Your task to perform on an android device: show emergency info Image 0: 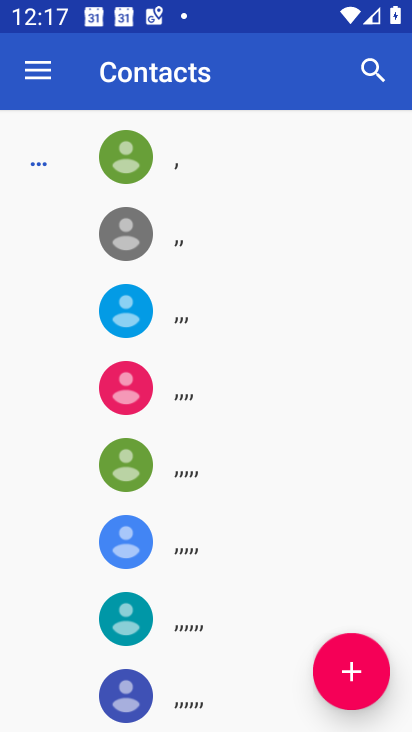
Step 0: press home button
Your task to perform on an android device: show emergency info Image 1: 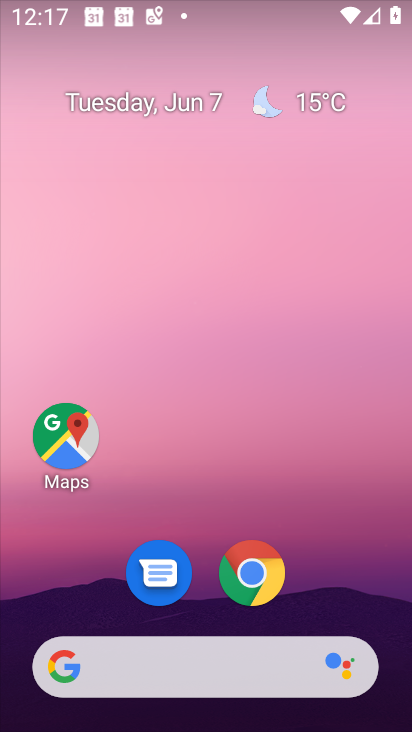
Step 1: drag from (318, 587) to (313, 31)
Your task to perform on an android device: show emergency info Image 2: 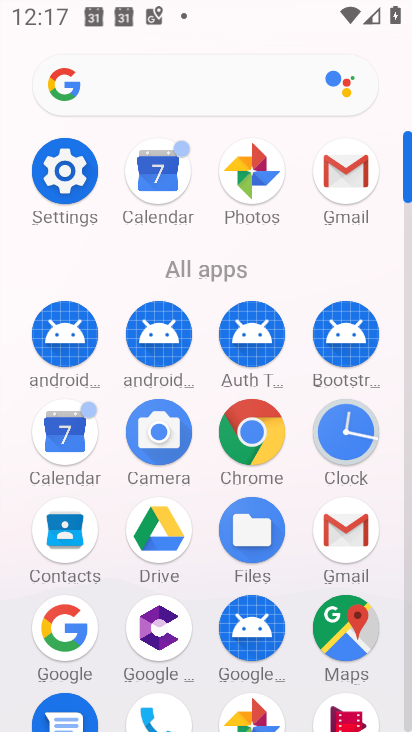
Step 2: click (51, 169)
Your task to perform on an android device: show emergency info Image 3: 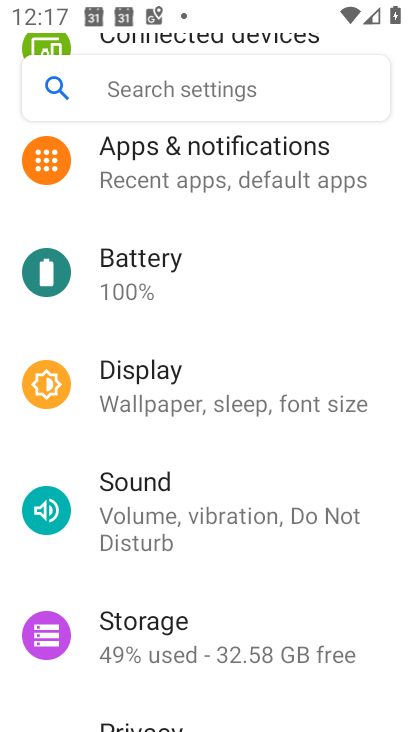
Step 3: drag from (352, 695) to (407, 321)
Your task to perform on an android device: show emergency info Image 4: 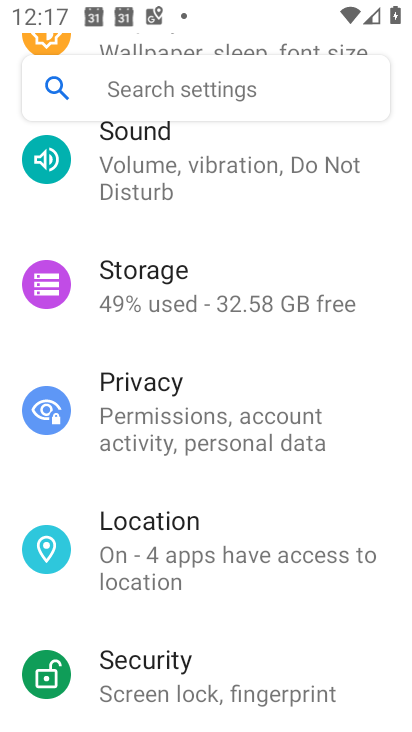
Step 4: drag from (350, 672) to (405, 256)
Your task to perform on an android device: show emergency info Image 5: 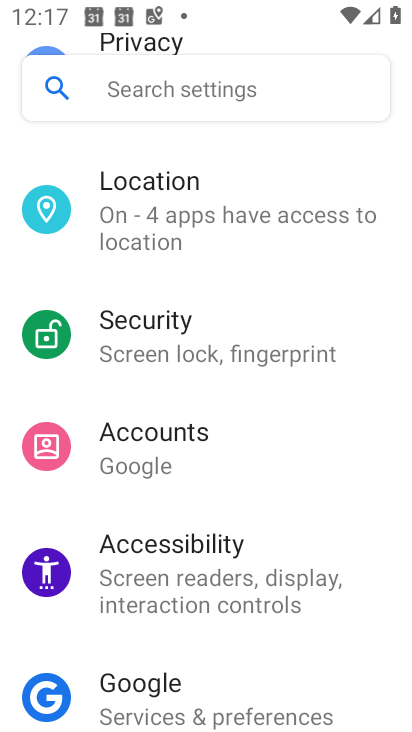
Step 5: drag from (373, 707) to (370, 14)
Your task to perform on an android device: show emergency info Image 6: 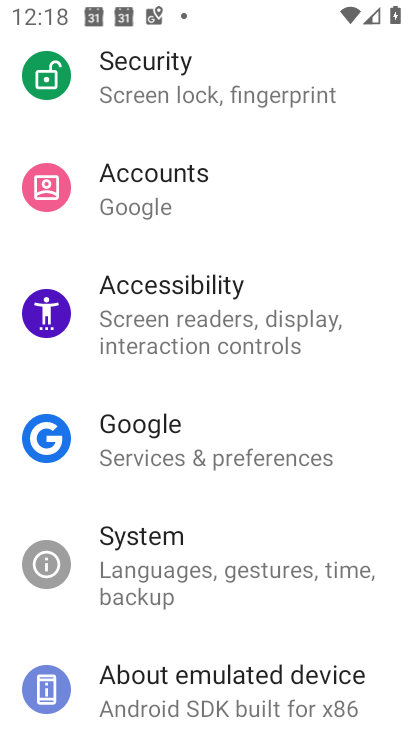
Step 6: click (143, 674)
Your task to perform on an android device: show emergency info Image 7: 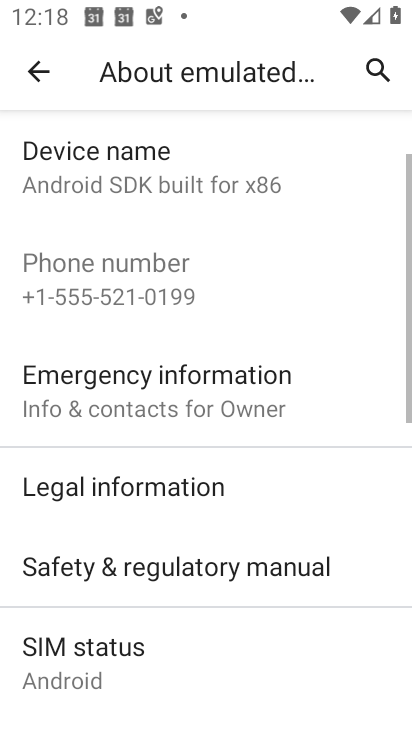
Step 7: click (160, 397)
Your task to perform on an android device: show emergency info Image 8: 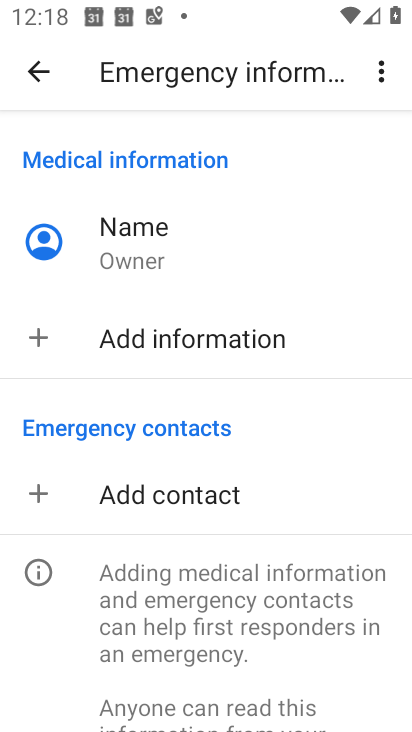
Step 8: task complete